Your task to perform on an android device: refresh tabs in the chrome app Image 0: 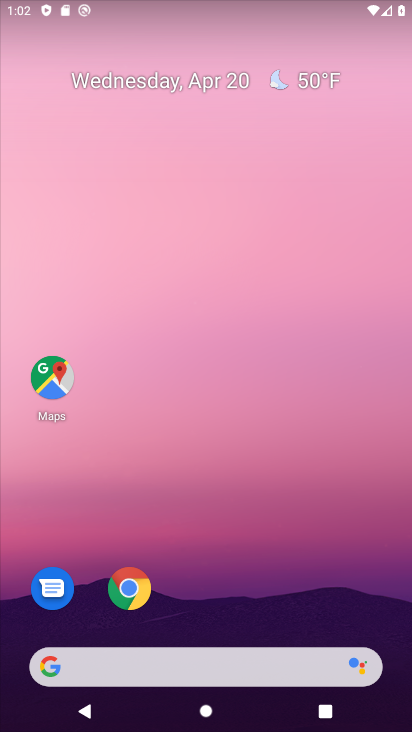
Step 0: click (134, 583)
Your task to perform on an android device: refresh tabs in the chrome app Image 1: 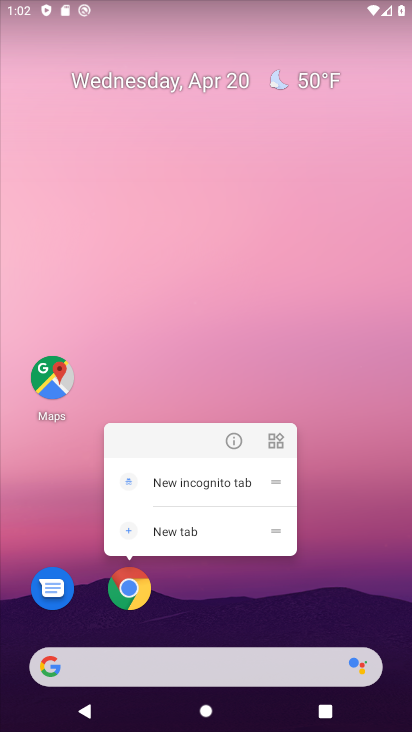
Step 1: click (124, 592)
Your task to perform on an android device: refresh tabs in the chrome app Image 2: 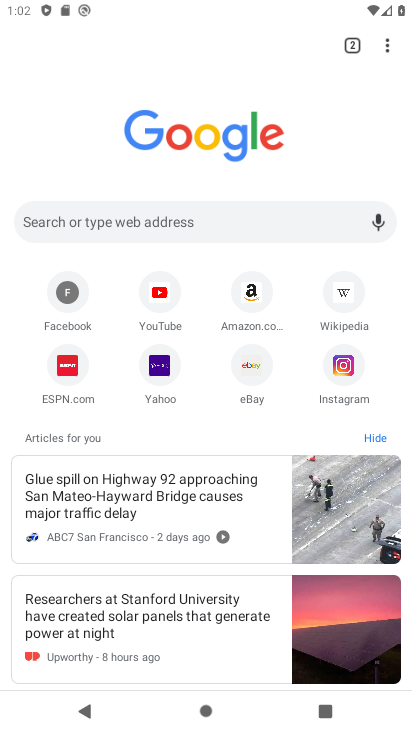
Step 2: click (388, 46)
Your task to perform on an android device: refresh tabs in the chrome app Image 3: 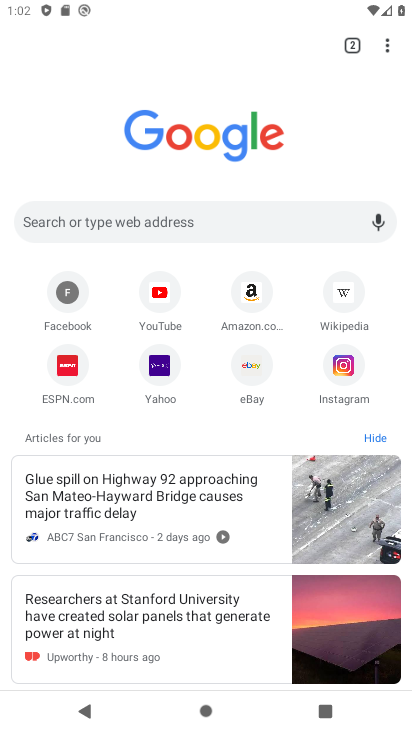
Step 3: click (388, 46)
Your task to perform on an android device: refresh tabs in the chrome app Image 4: 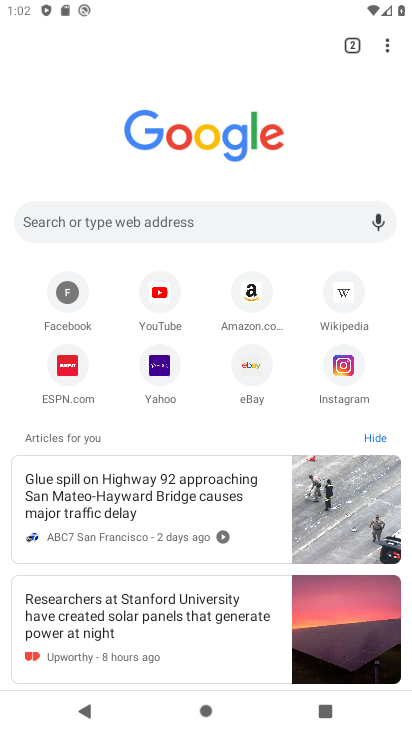
Step 4: click (387, 38)
Your task to perform on an android device: refresh tabs in the chrome app Image 5: 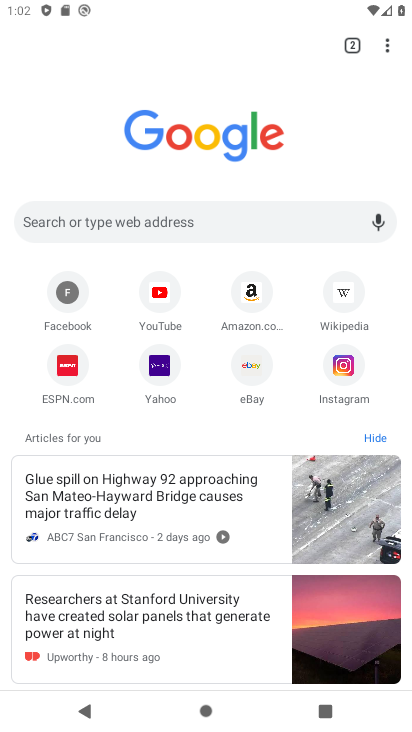
Step 5: click (386, 47)
Your task to perform on an android device: refresh tabs in the chrome app Image 6: 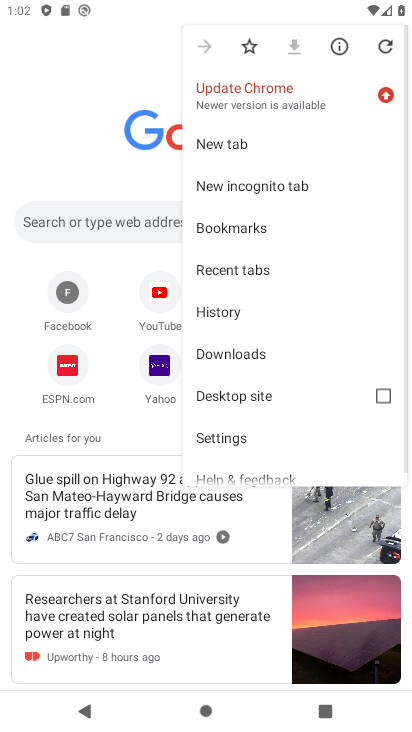
Step 6: click (386, 47)
Your task to perform on an android device: refresh tabs in the chrome app Image 7: 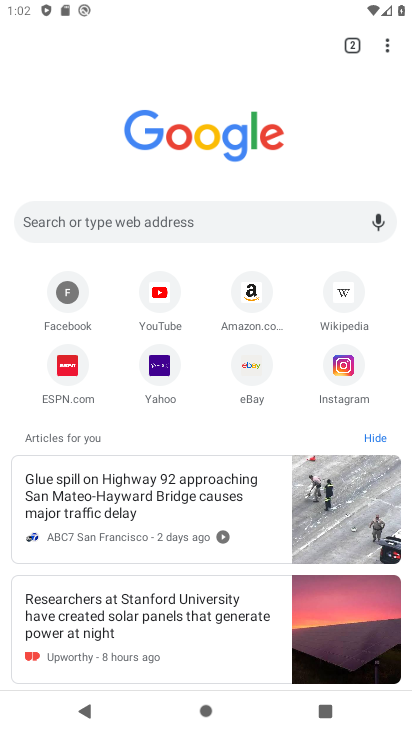
Step 7: task complete